Your task to perform on an android device: Open Chrome and go to settings Image 0: 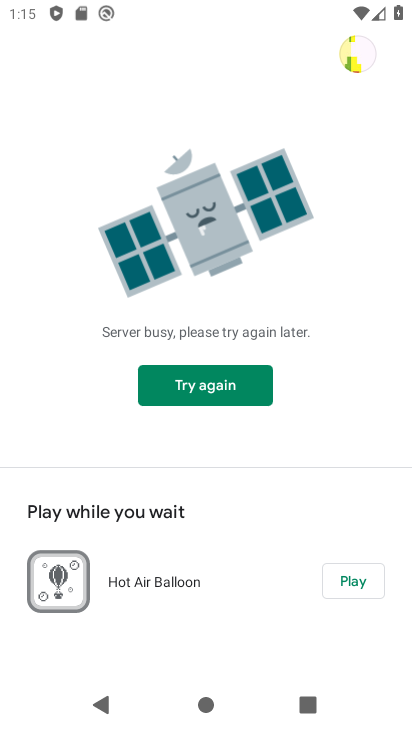
Step 0: press home button
Your task to perform on an android device: Open Chrome and go to settings Image 1: 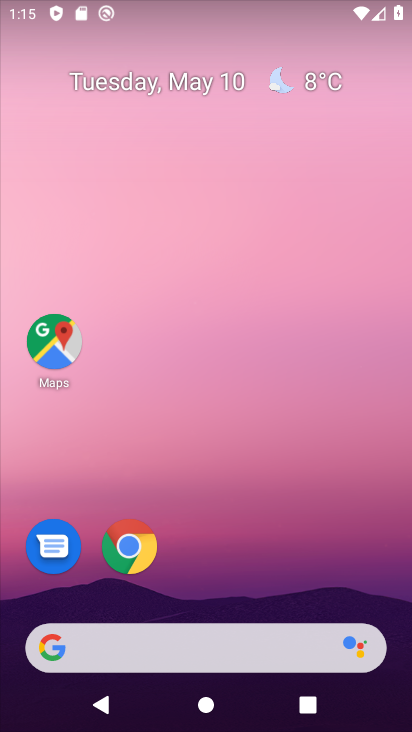
Step 1: click (133, 548)
Your task to perform on an android device: Open Chrome and go to settings Image 2: 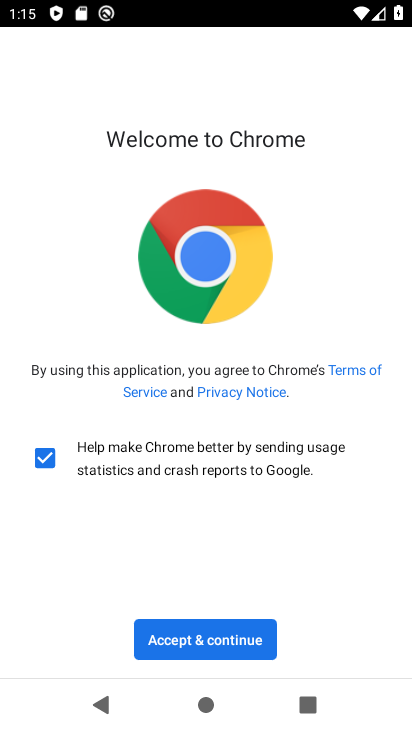
Step 2: click (191, 644)
Your task to perform on an android device: Open Chrome and go to settings Image 3: 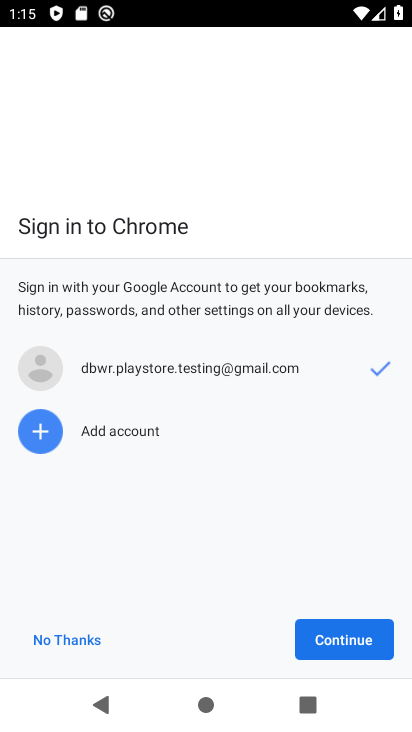
Step 3: click (333, 642)
Your task to perform on an android device: Open Chrome and go to settings Image 4: 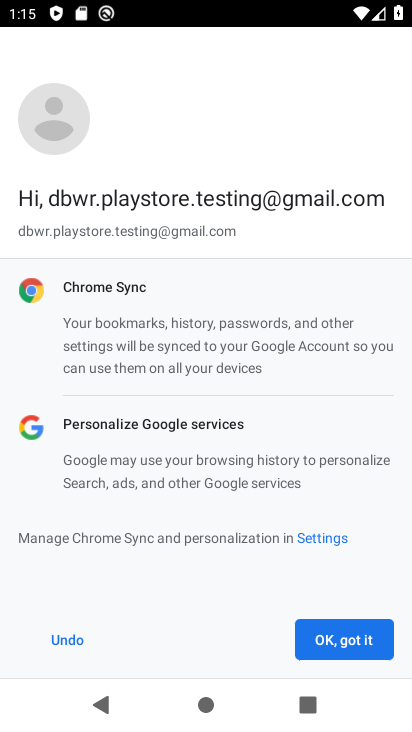
Step 4: click (333, 642)
Your task to perform on an android device: Open Chrome and go to settings Image 5: 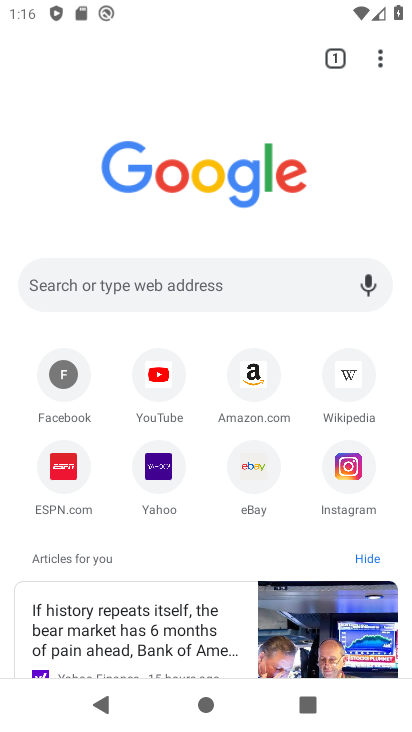
Step 5: click (377, 62)
Your task to perform on an android device: Open Chrome and go to settings Image 6: 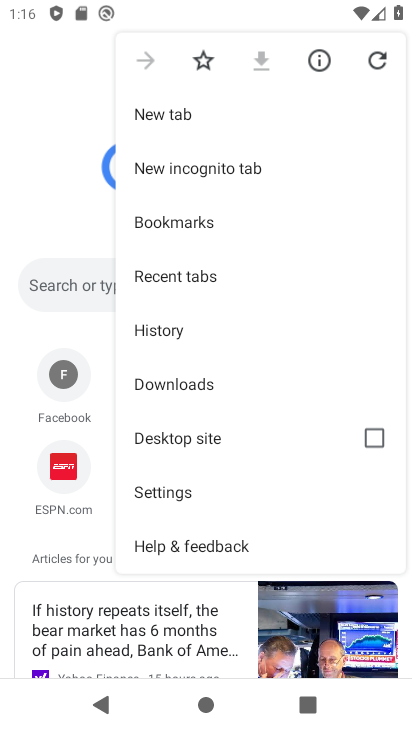
Step 6: click (160, 491)
Your task to perform on an android device: Open Chrome and go to settings Image 7: 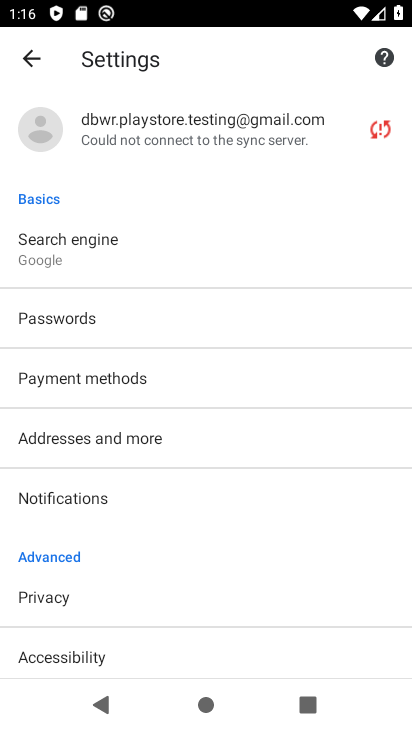
Step 7: task complete